Your task to perform on an android device: change the upload size in google photos Image 0: 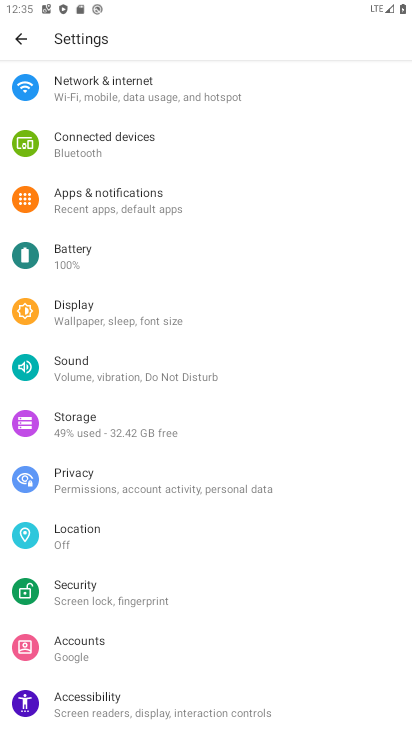
Step 0: press home button
Your task to perform on an android device: change the upload size in google photos Image 1: 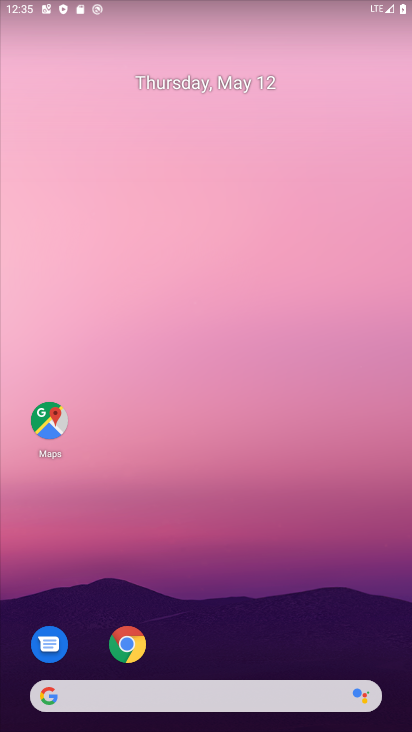
Step 1: drag from (242, 576) to (213, 160)
Your task to perform on an android device: change the upload size in google photos Image 2: 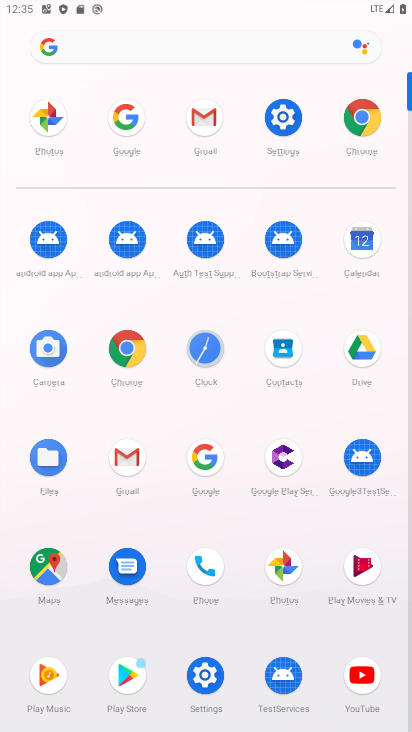
Step 2: click (286, 568)
Your task to perform on an android device: change the upload size in google photos Image 3: 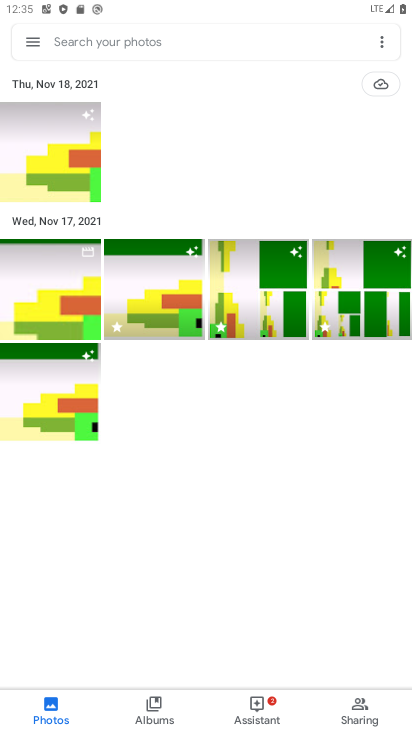
Step 3: click (24, 43)
Your task to perform on an android device: change the upload size in google photos Image 4: 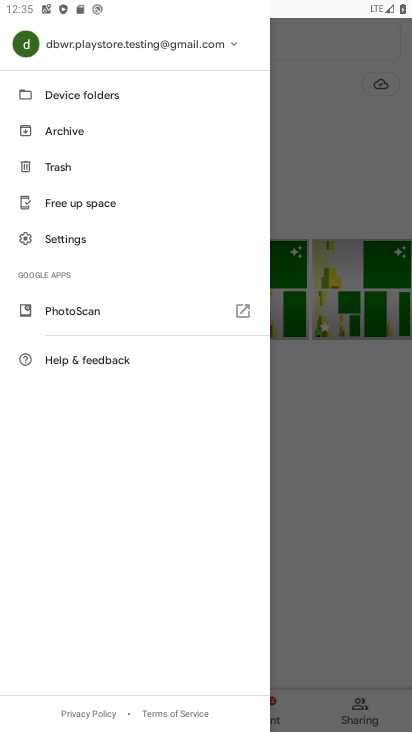
Step 4: click (107, 239)
Your task to perform on an android device: change the upload size in google photos Image 5: 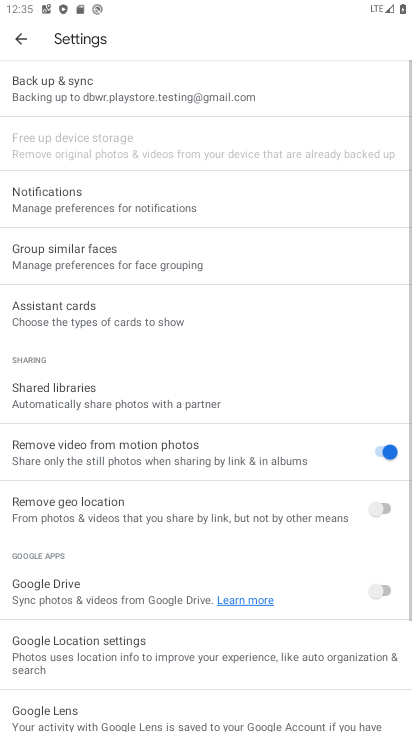
Step 5: click (125, 93)
Your task to perform on an android device: change the upload size in google photos Image 6: 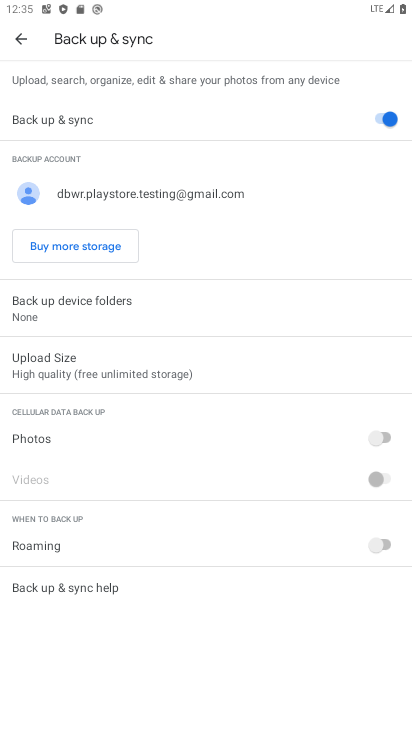
Step 6: click (74, 368)
Your task to perform on an android device: change the upload size in google photos Image 7: 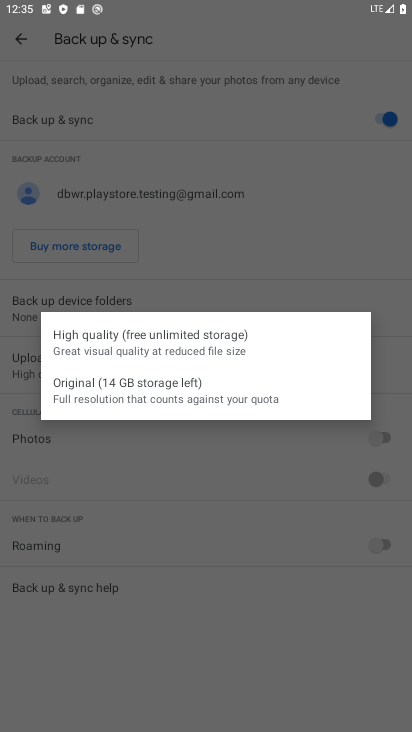
Step 7: click (168, 388)
Your task to perform on an android device: change the upload size in google photos Image 8: 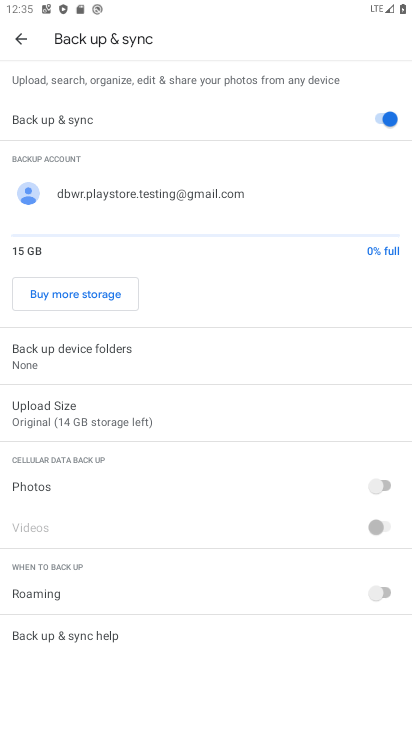
Step 8: task complete